Your task to perform on an android device: Open maps Image 0: 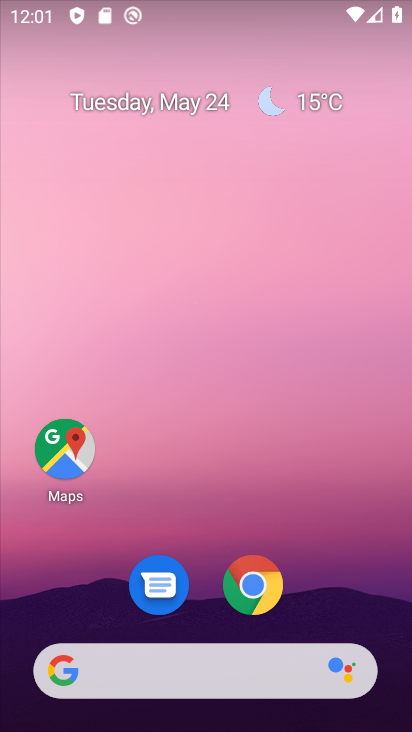
Step 0: click (73, 457)
Your task to perform on an android device: Open maps Image 1: 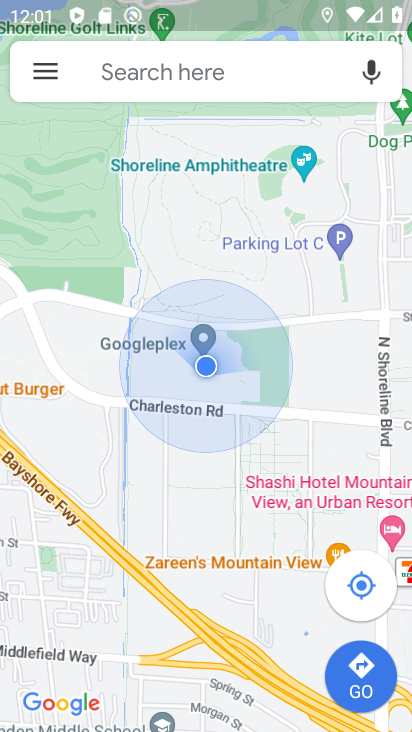
Step 1: task complete